Your task to perform on an android device: remove spam from my inbox in the gmail app Image 0: 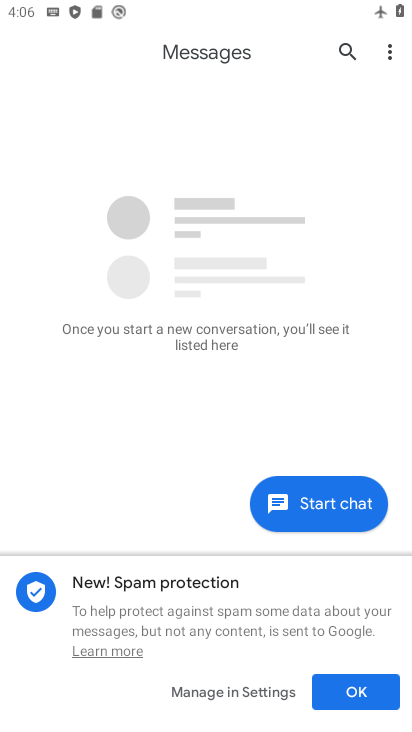
Step 0: press home button
Your task to perform on an android device: remove spam from my inbox in the gmail app Image 1: 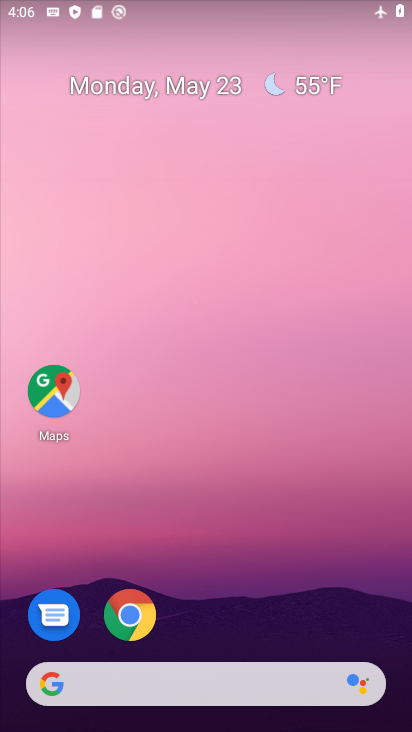
Step 1: drag from (364, 592) to (369, 179)
Your task to perform on an android device: remove spam from my inbox in the gmail app Image 2: 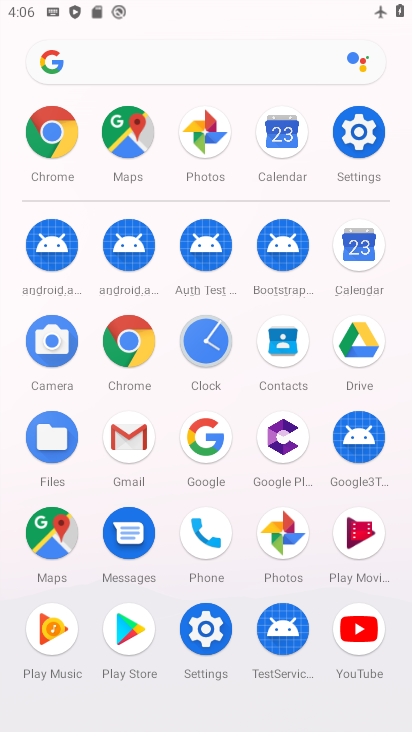
Step 2: drag from (380, 656) to (394, 436)
Your task to perform on an android device: remove spam from my inbox in the gmail app Image 3: 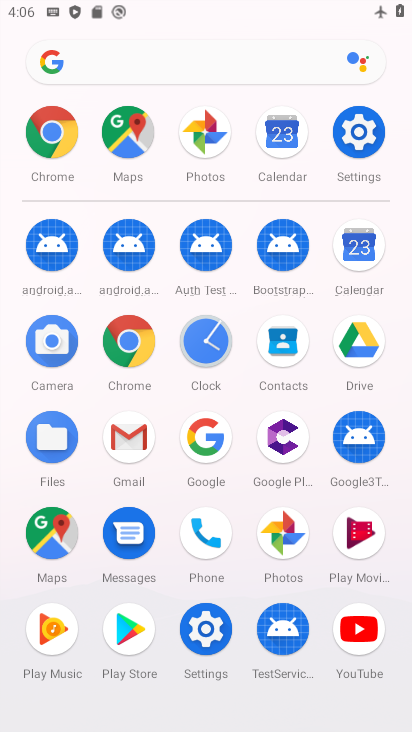
Step 3: click (111, 442)
Your task to perform on an android device: remove spam from my inbox in the gmail app Image 4: 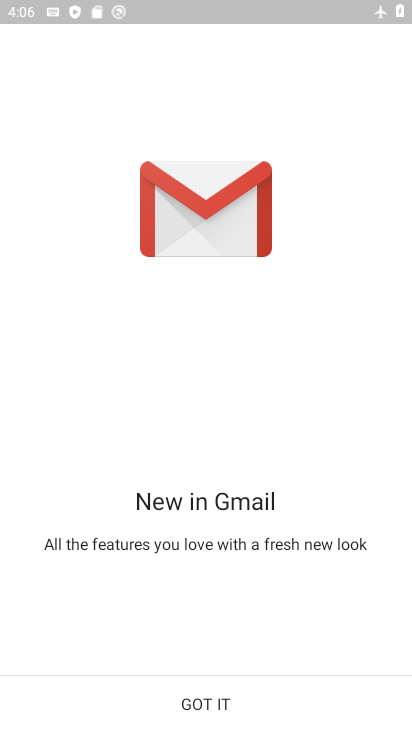
Step 4: click (248, 711)
Your task to perform on an android device: remove spam from my inbox in the gmail app Image 5: 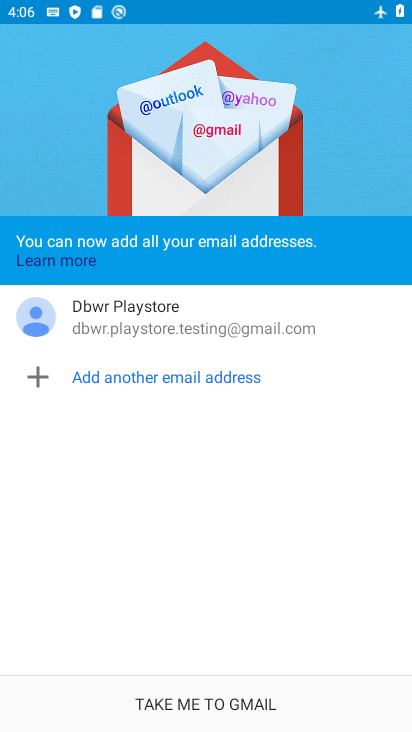
Step 5: click (248, 711)
Your task to perform on an android device: remove spam from my inbox in the gmail app Image 6: 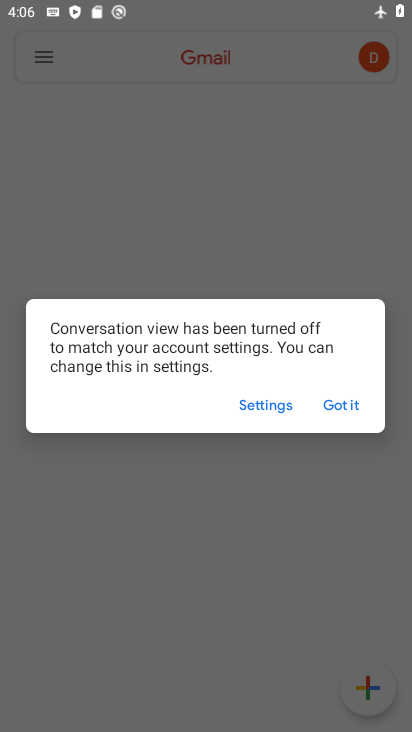
Step 6: click (339, 411)
Your task to perform on an android device: remove spam from my inbox in the gmail app Image 7: 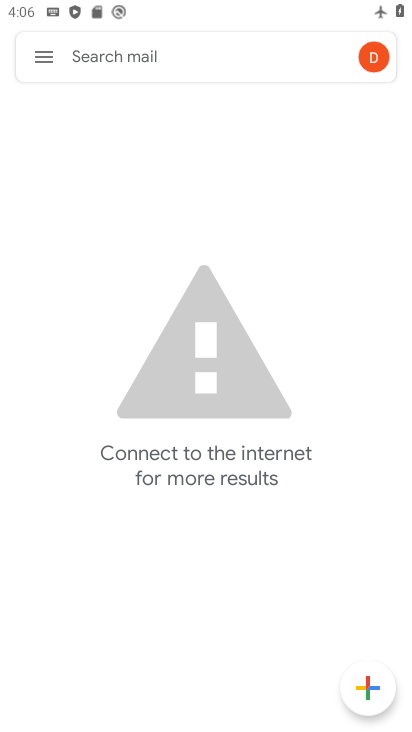
Step 7: click (35, 63)
Your task to perform on an android device: remove spam from my inbox in the gmail app Image 8: 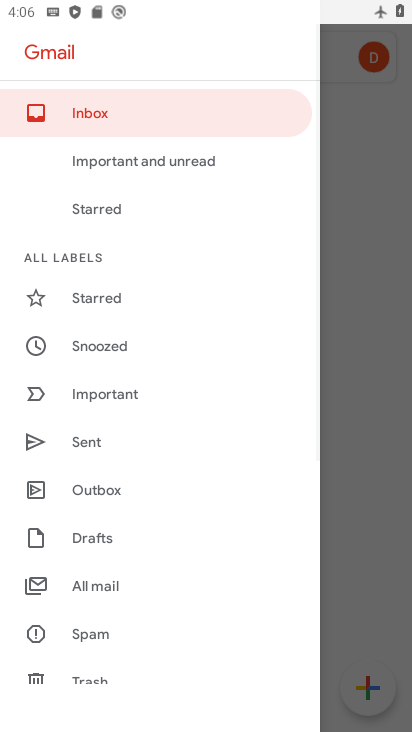
Step 8: drag from (201, 585) to (226, 285)
Your task to perform on an android device: remove spam from my inbox in the gmail app Image 9: 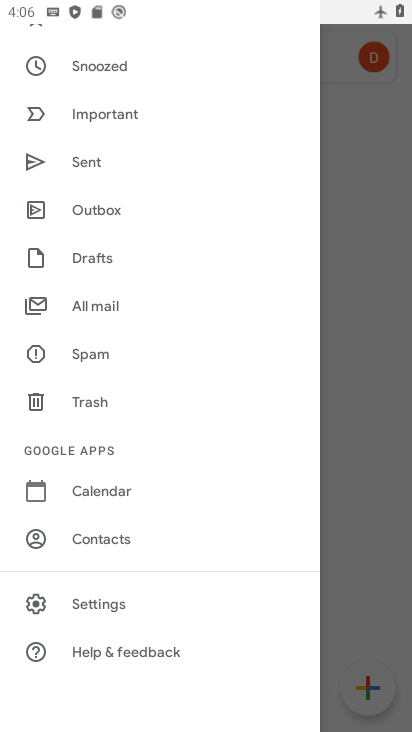
Step 9: click (122, 352)
Your task to perform on an android device: remove spam from my inbox in the gmail app Image 10: 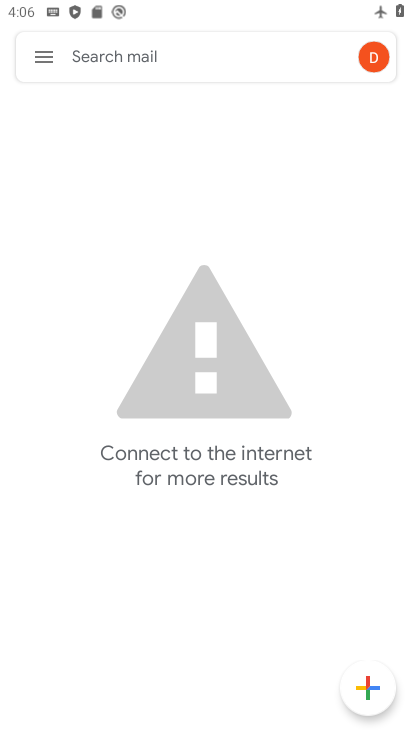
Step 10: task complete